Your task to perform on an android device: Search for the best value 4K TV on Best Buy Image 0: 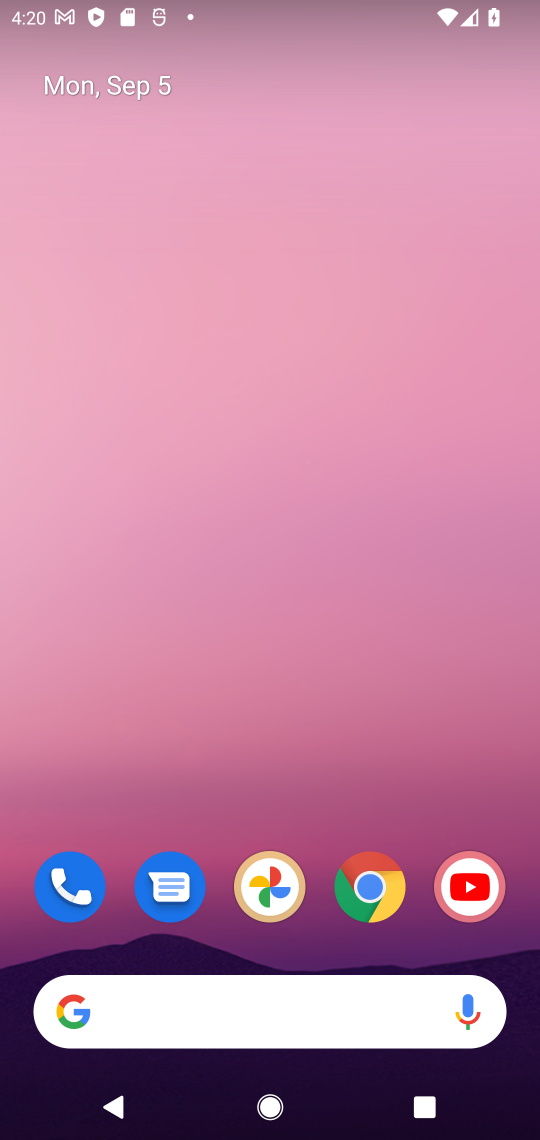
Step 0: click (331, 138)
Your task to perform on an android device: Search for the best value 4K TV on Best Buy Image 1: 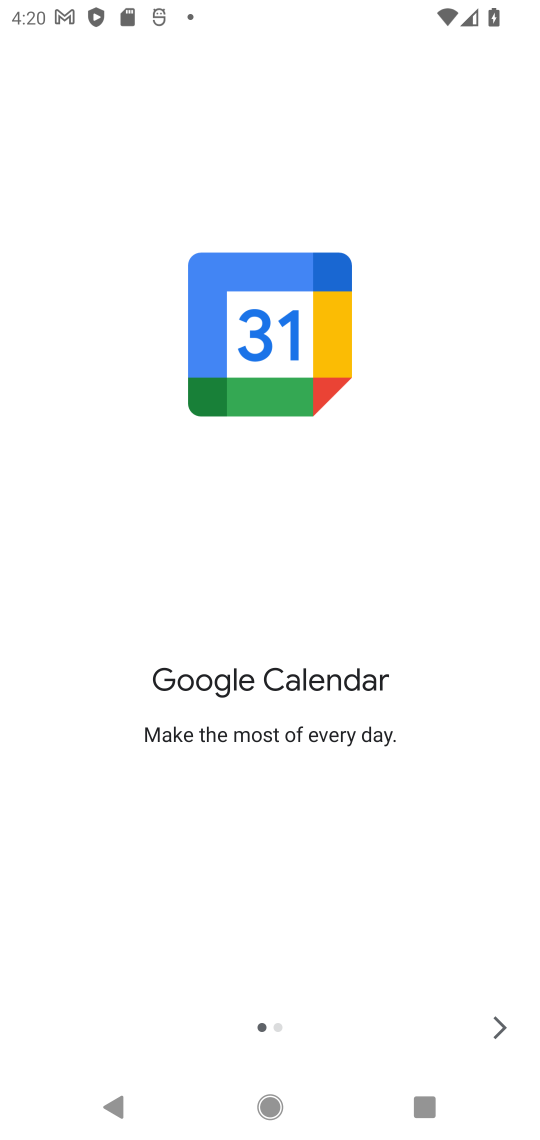
Step 1: press home button
Your task to perform on an android device: Search for the best value 4K TV on Best Buy Image 2: 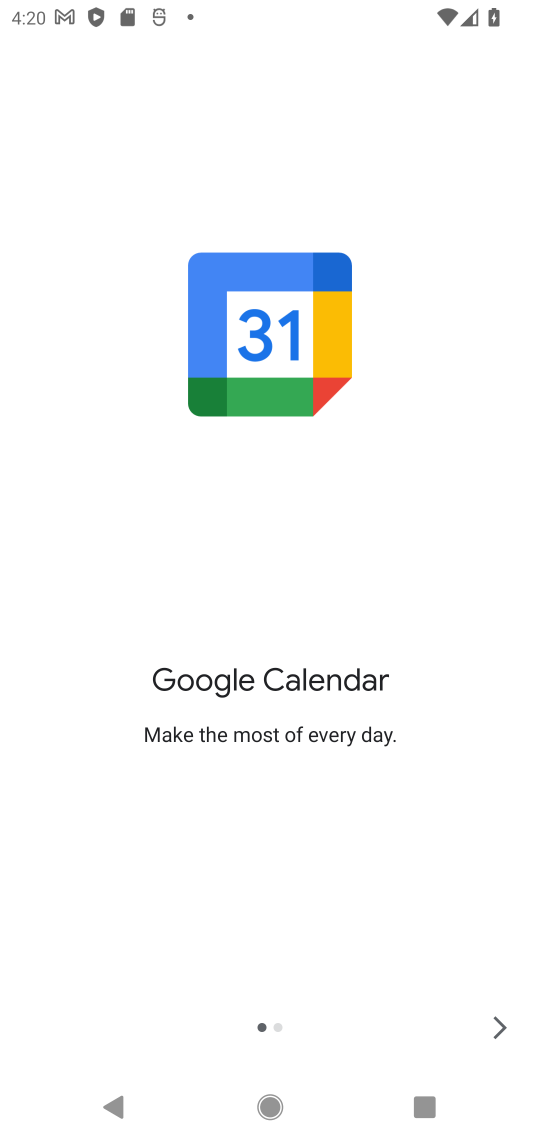
Step 2: press home button
Your task to perform on an android device: Search for the best value 4K TV on Best Buy Image 3: 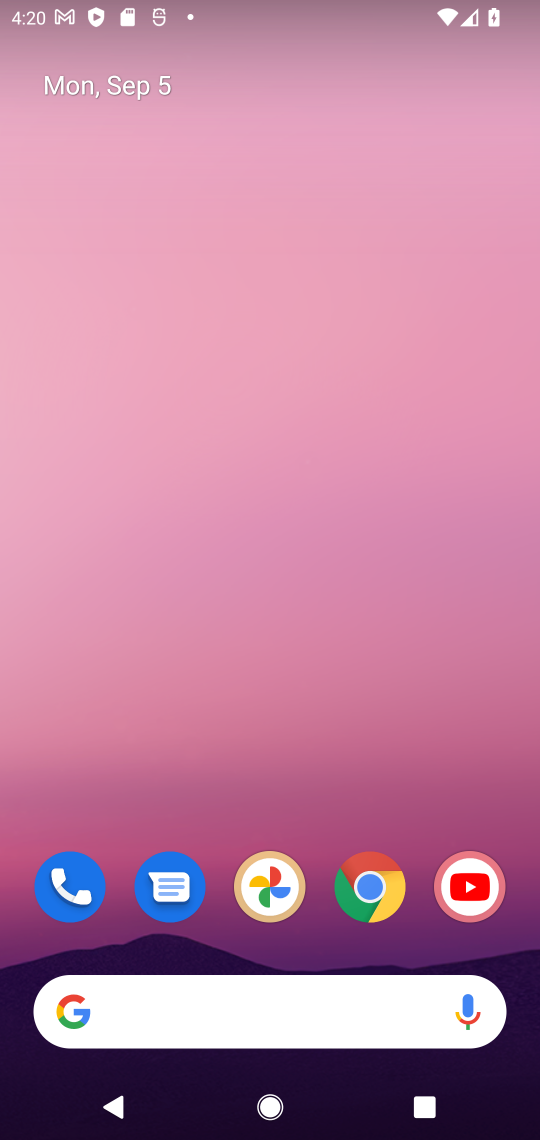
Step 3: drag from (323, 937) to (393, 114)
Your task to perform on an android device: Search for the best value 4K TV on Best Buy Image 4: 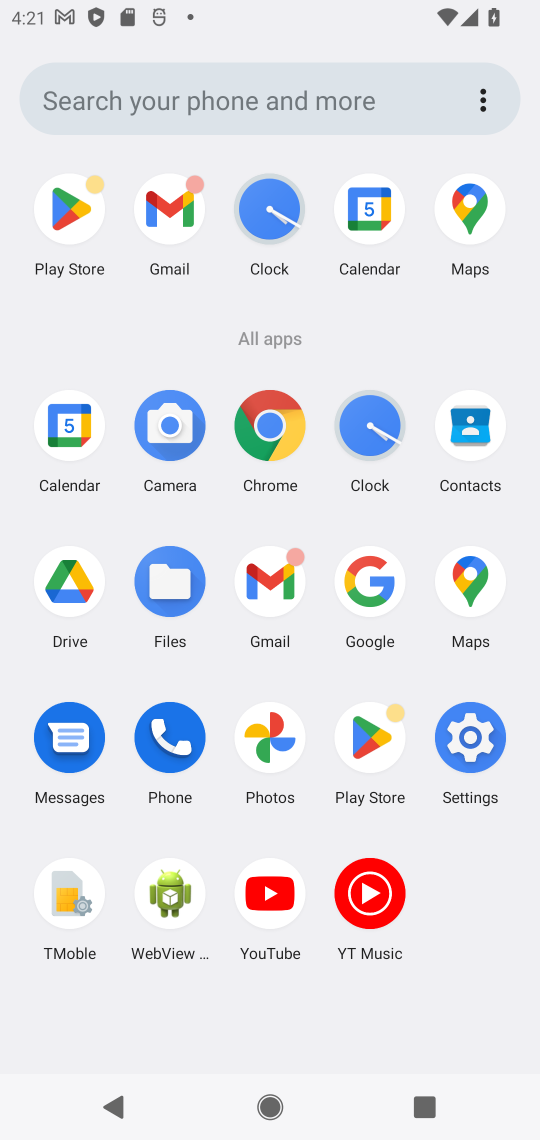
Step 4: click (268, 430)
Your task to perform on an android device: Search for the best value 4K TV on Best Buy Image 5: 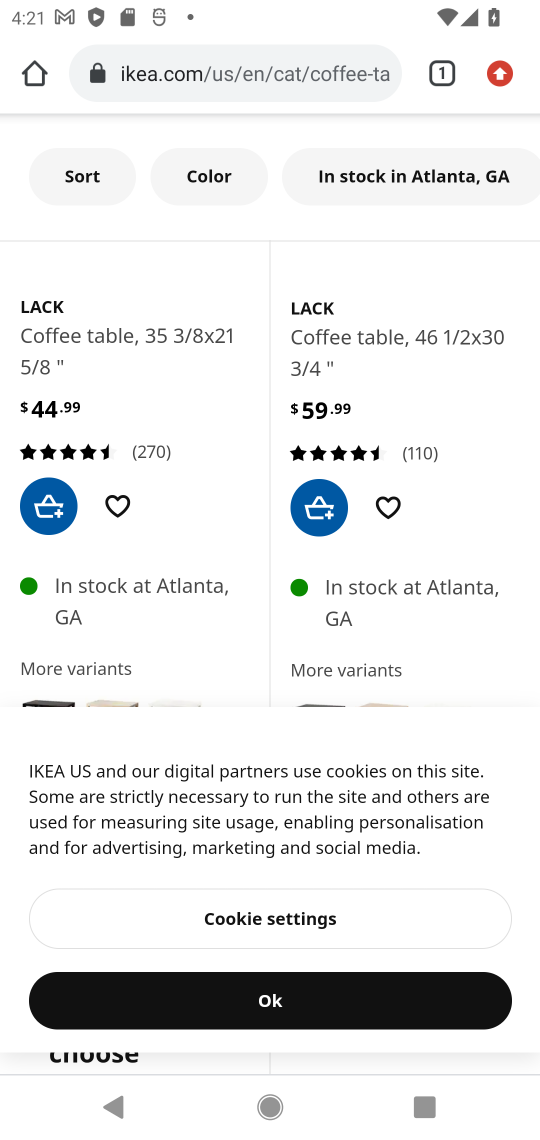
Step 5: click (181, 57)
Your task to perform on an android device: Search for the best value 4K TV on Best Buy Image 6: 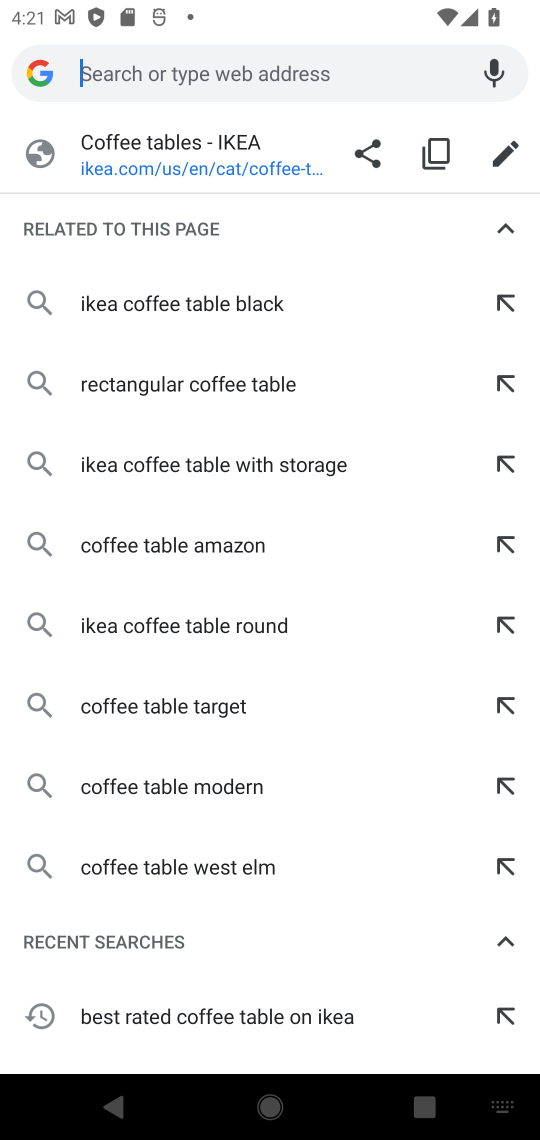
Step 6: type "the best value 4K TV on Best Buy"
Your task to perform on an android device: Search for the best value 4K TV on Best Buy Image 7: 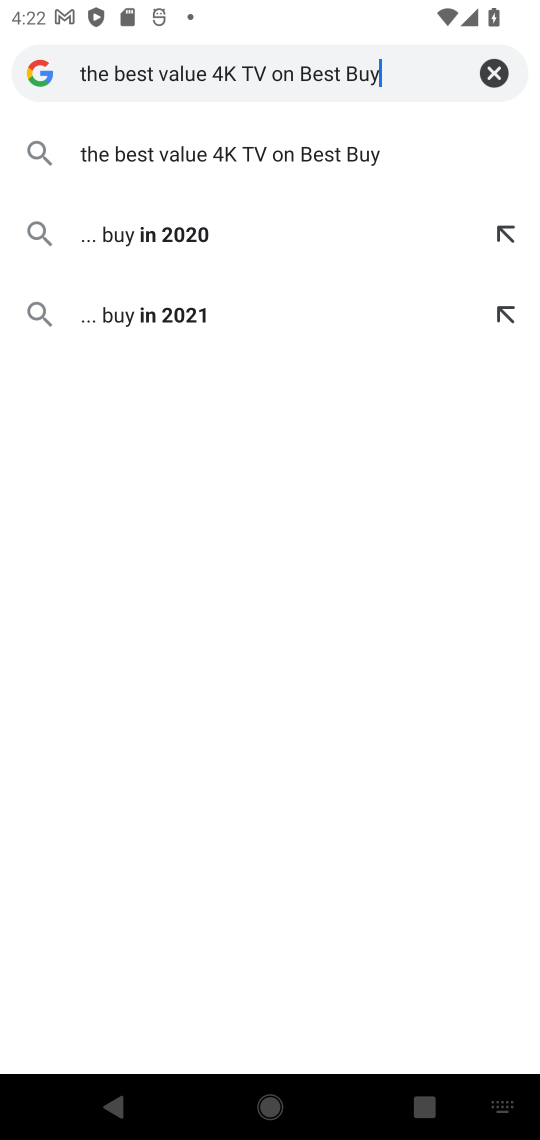
Step 7: press enter
Your task to perform on an android device: Search for the best value 4K TV on Best Buy Image 8: 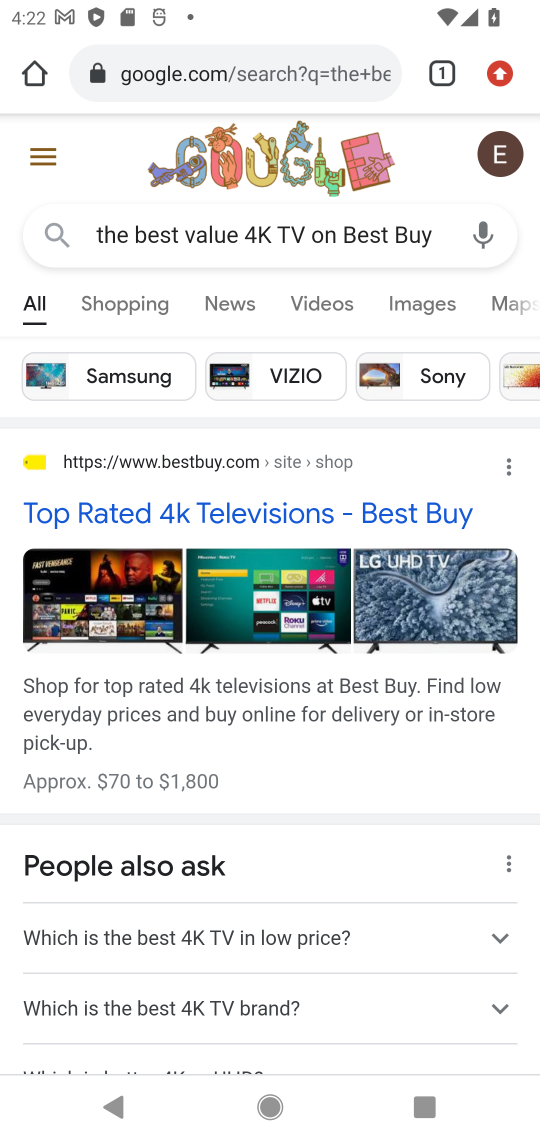
Step 8: click (402, 700)
Your task to perform on an android device: Search for the best value 4K TV on Best Buy Image 9: 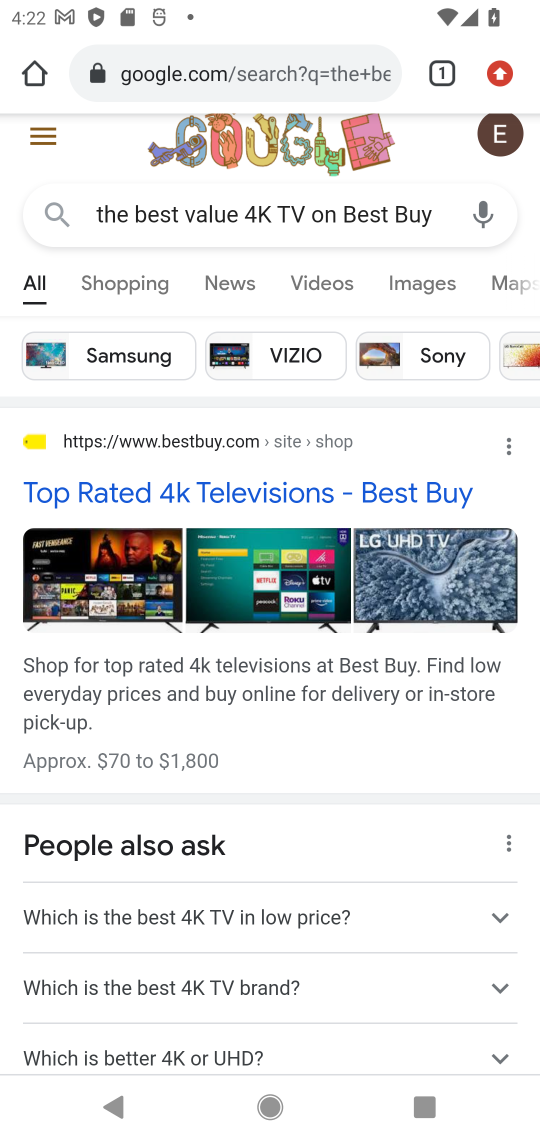
Step 9: click (273, 485)
Your task to perform on an android device: Search for the best value 4K TV on Best Buy Image 10: 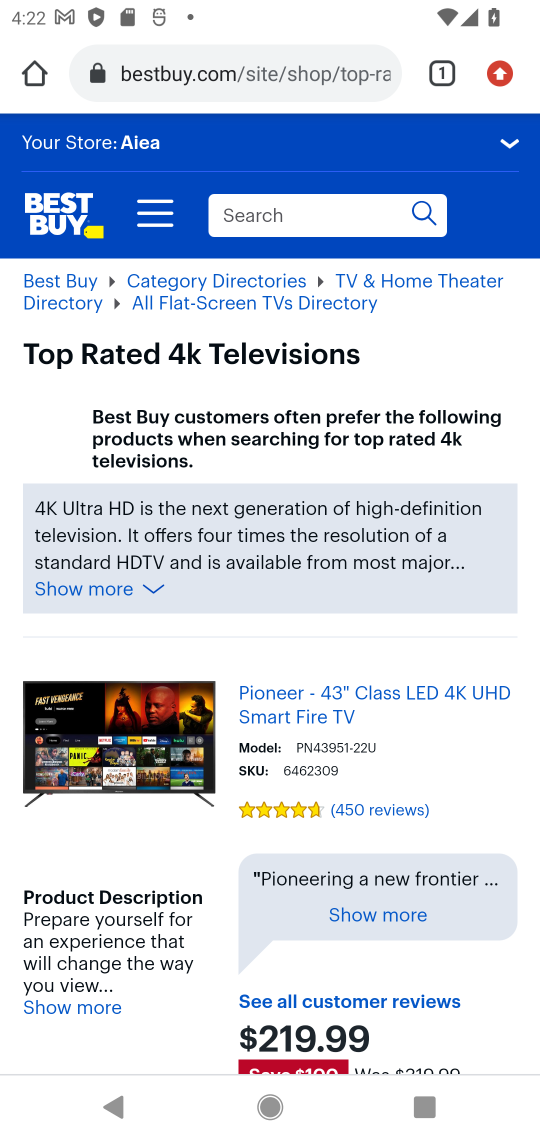
Step 10: task complete